Your task to perform on an android device: When is my next appointment? Image 0: 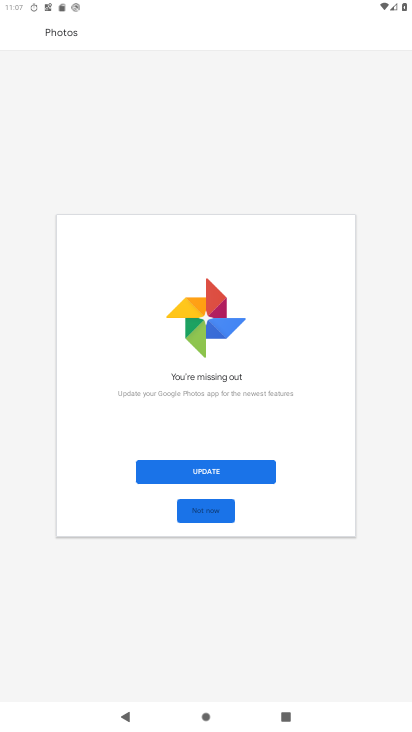
Step 0: press home button
Your task to perform on an android device: When is my next appointment? Image 1: 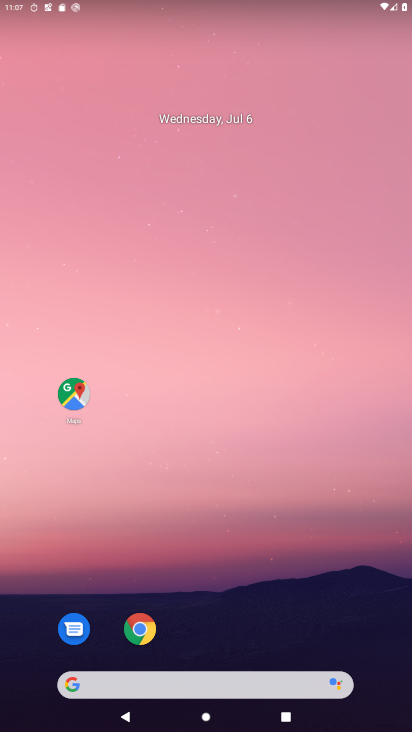
Step 1: drag from (217, 648) to (183, 8)
Your task to perform on an android device: When is my next appointment? Image 2: 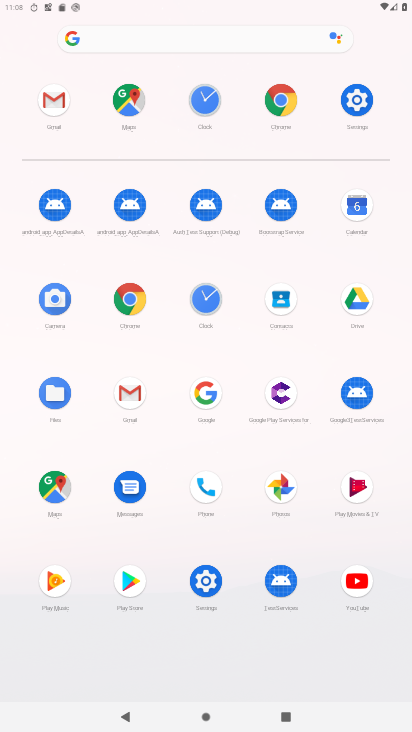
Step 2: click (351, 198)
Your task to perform on an android device: When is my next appointment? Image 3: 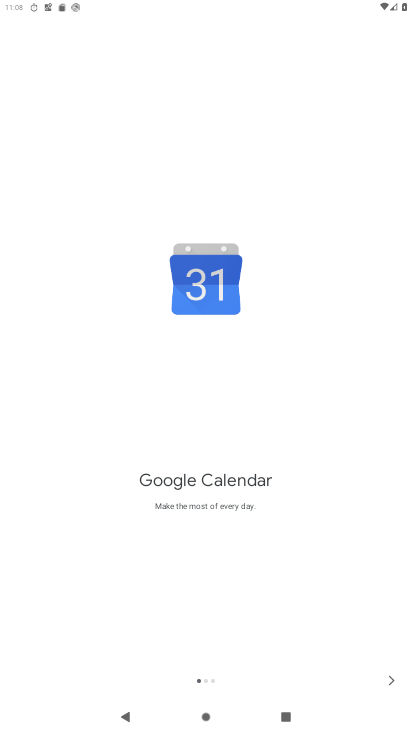
Step 3: click (385, 675)
Your task to perform on an android device: When is my next appointment? Image 4: 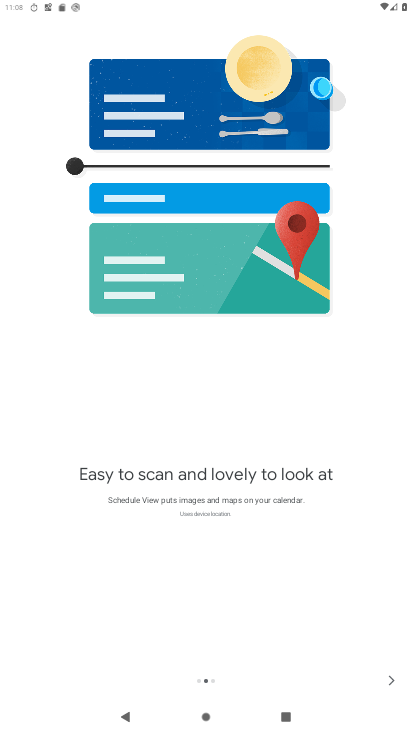
Step 4: click (380, 676)
Your task to perform on an android device: When is my next appointment? Image 5: 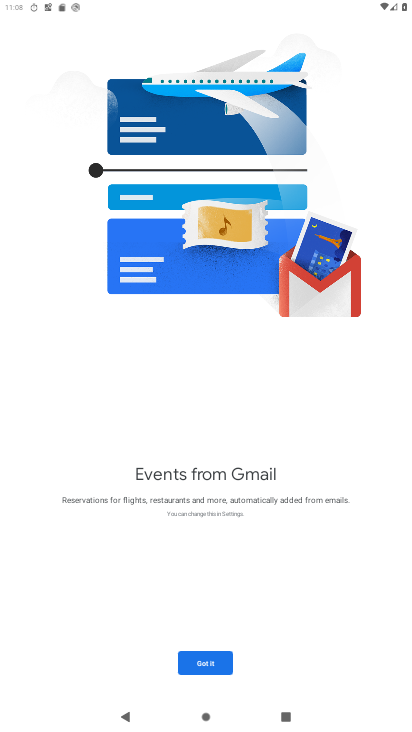
Step 5: click (206, 664)
Your task to perform on an android device: When is my next appointment? Image 6: 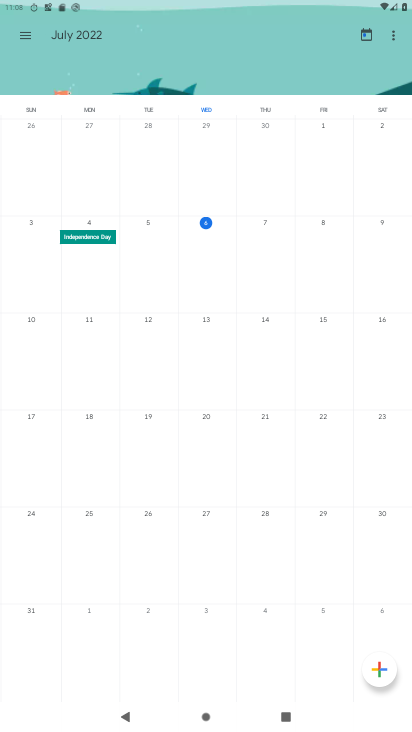
Step 6: click (22, 28)
Your task to perform on an android device: When is my next appointment? Image 7: 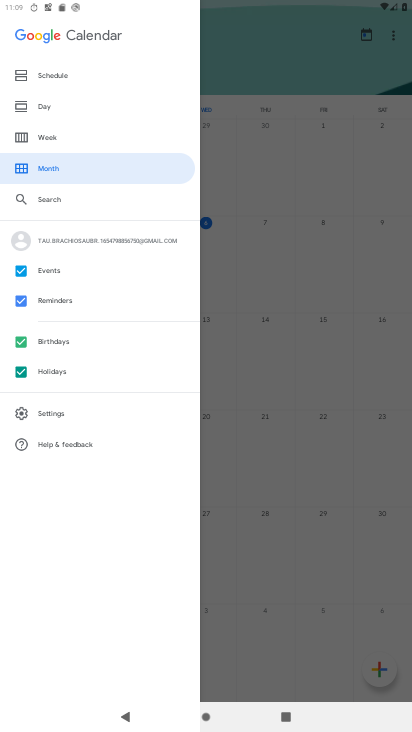
Step 7: click (33, 104)
Your task to perform on an android device: When is my next appointment? Image 8: 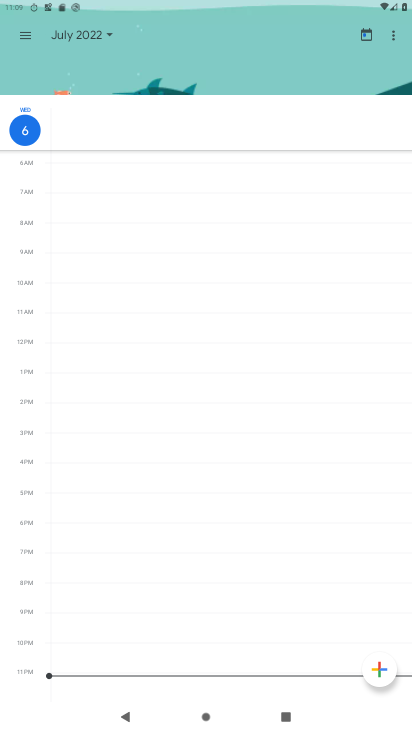
Step 8: click (39, 128)
Your task to perform on an android device: When is my next appointment? Image 9: 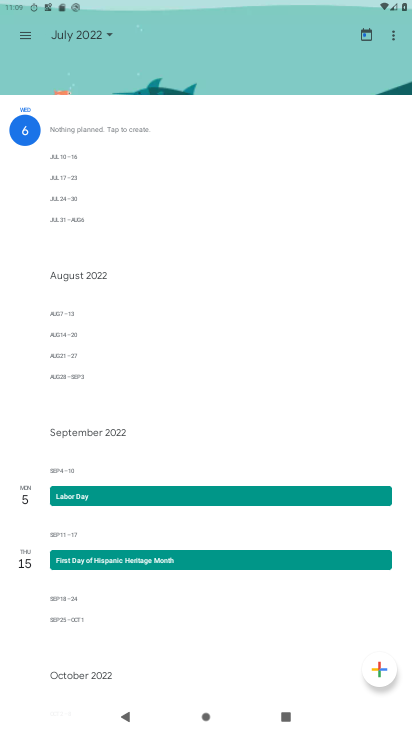
Step 9: task complete